Your task to perform on an android device: turn on javascript in the chrome app Image 0: 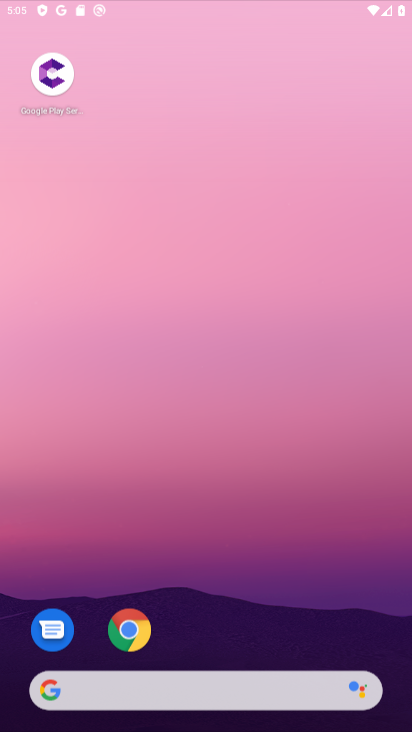
Step 0: drag from (237, 645) to (300, 149)
Your task to perform on an android device: turn on javascript in the chrome app Image 1: 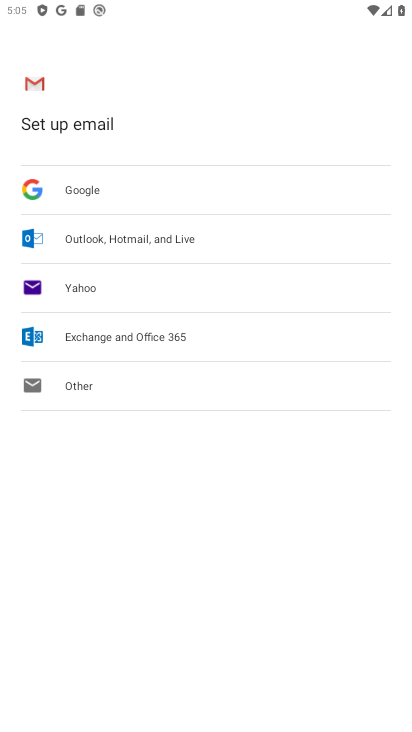
Step 1: press home button
Your task to perform on an android device: turn on javascript in the chrome app Image 2: 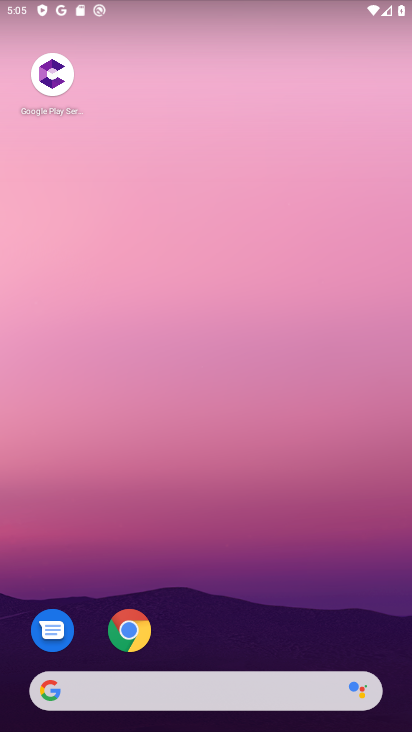
Step 2: click (130, 643)
Your task to perform on an android device: turn on javascript in the chrome app Image 3: 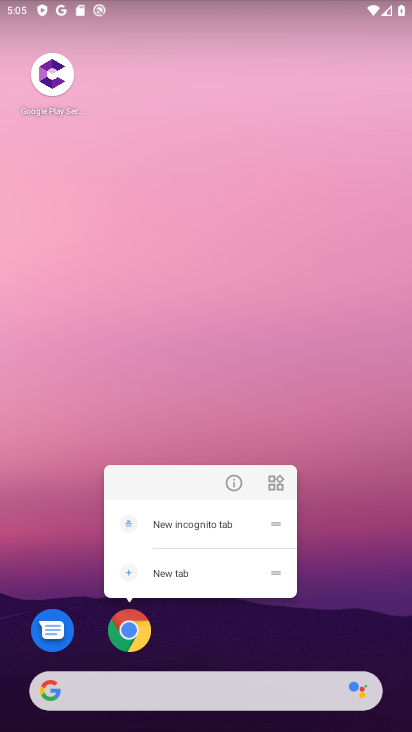
Step 3: click (138, 632)
Your task to perform on an android device: turn on javascript in the chrome app Image 4: 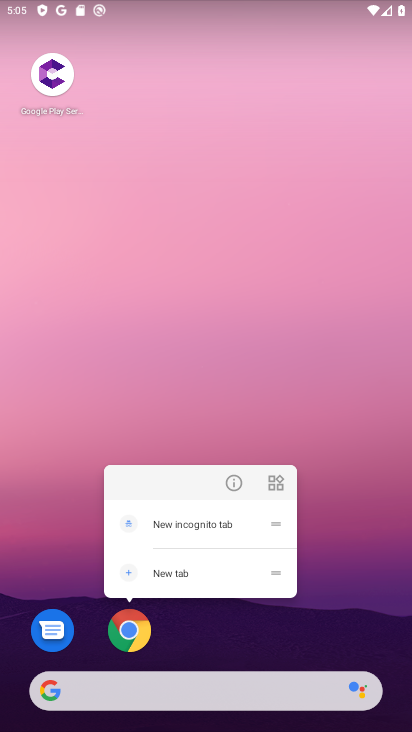
Step 4: click (138, 631)
Your task to perform on an android device: turn on javascript in the chrome app Image 5: 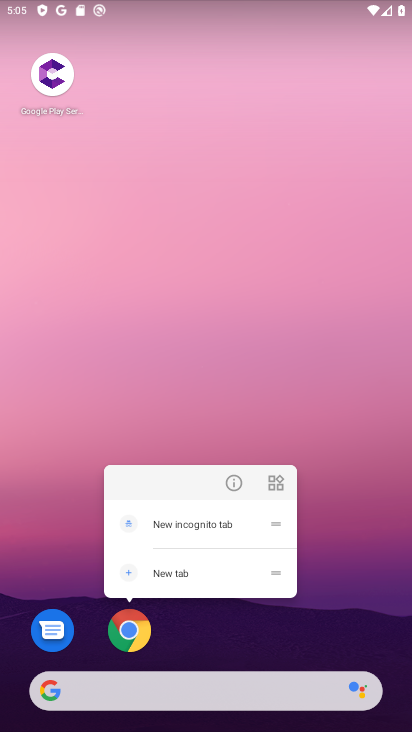
Step 5: click (135, 630)
Your task to perform on an android device: turn on javascript in the chrome app Image 6: 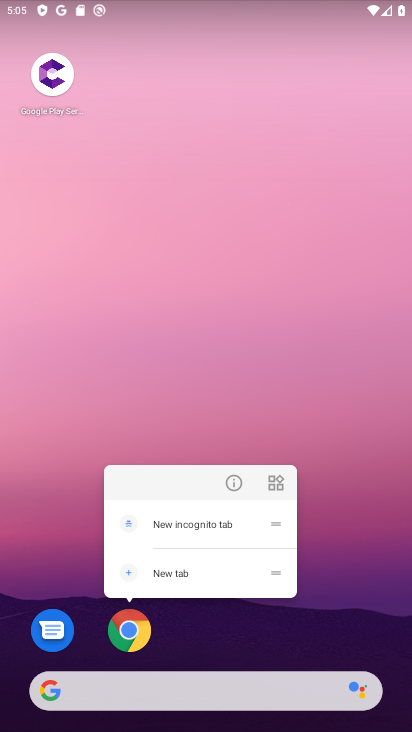
Step 6: click (134, 630)
Your task to perform on an android device: turn on javascript in the chrome app Image 7: 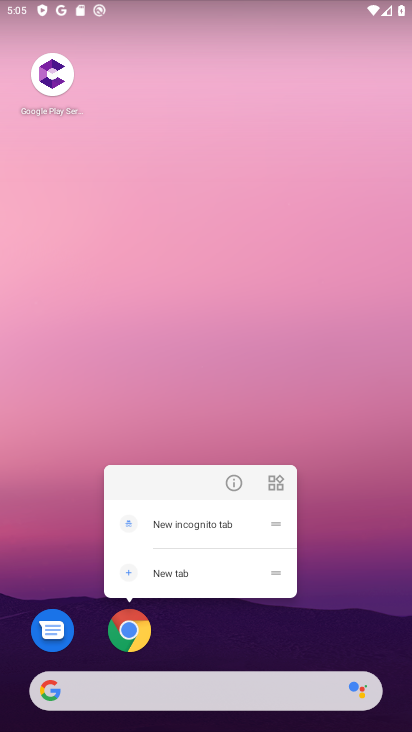
Step 7: click (134, 629)
Your task to perform on an android device: turn on javascript in the chrome app Image 8: 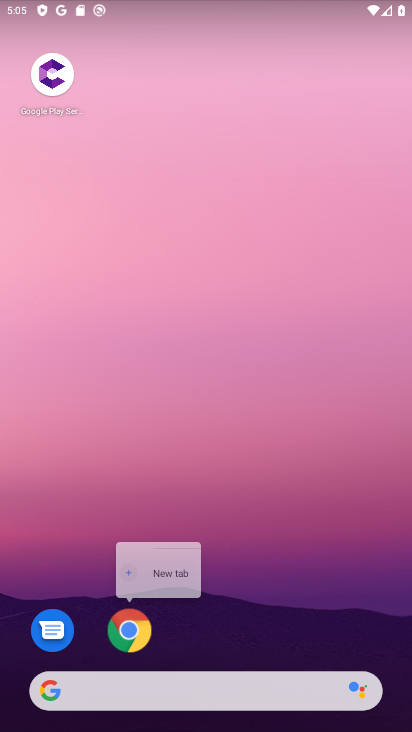
Step 8: click (134, 629)
Your task to perform on an android device: turn on javascript in the chrome app Image 9: 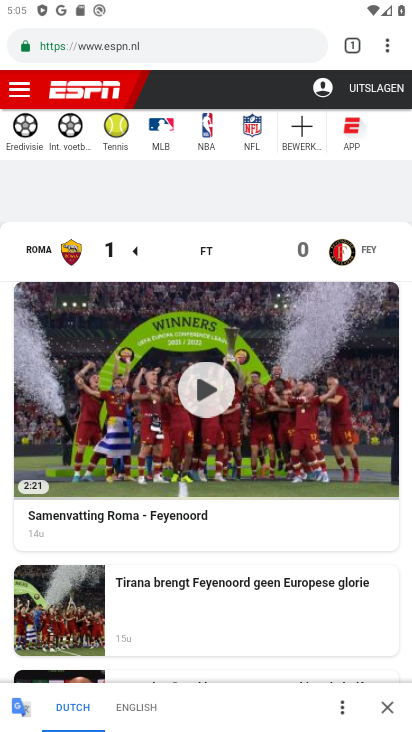
Step 9: drag from (384, 39) to (270, 559)
Your task to perform on an android device: turn on javascript in the chrome app Image 10: 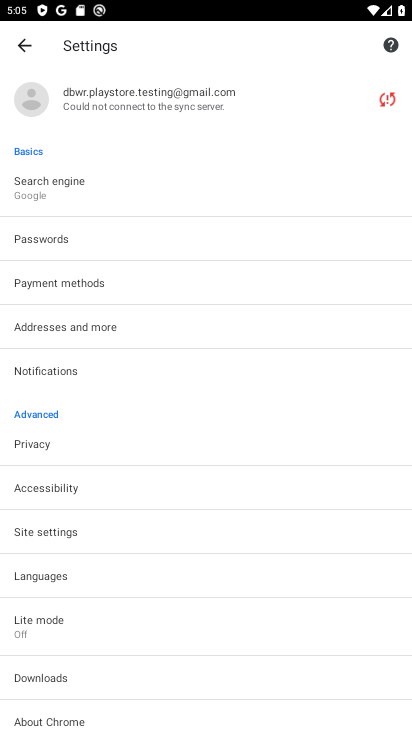
Step 10: drag from (240, 660) to (324, 430)
Your task to perform on an android device: turn on javascript in the chrome app Image 11: 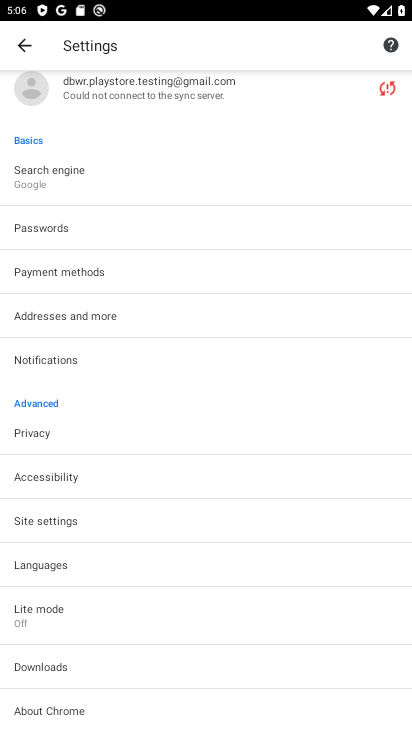
Step 11: click (84, 520)
Your task to perform on an android device: turn on javascript in the chrome app Image 12: 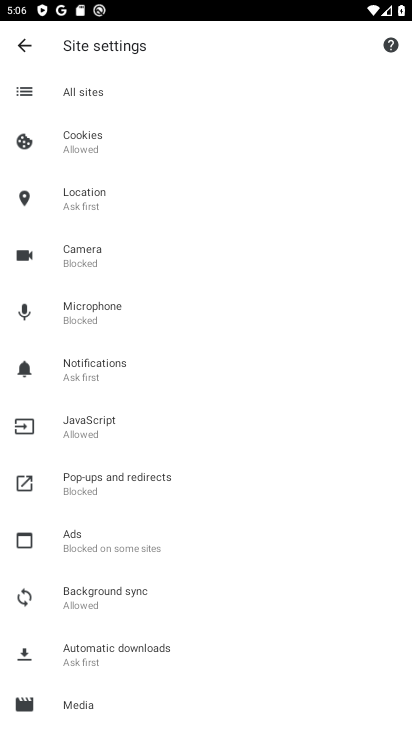
Step 12: drag from (189, 629) to (296, 336)
Your task to perform on an android device: turn on javascript in the chrome app Image 13: 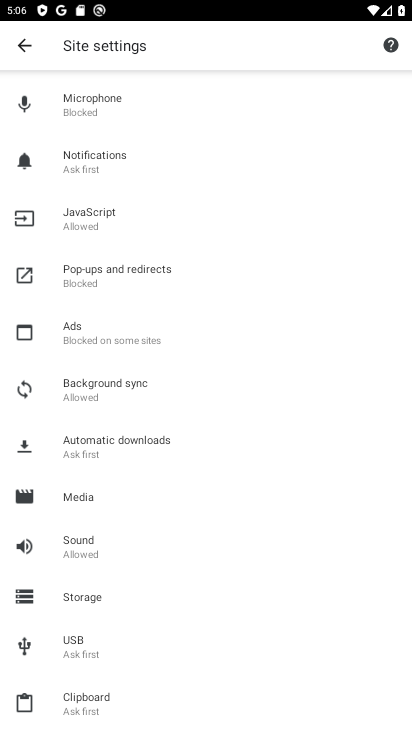
Step 13: click (181, 203)
Your task to perform on an android device: turn on javascript in the chrome app Image 14: 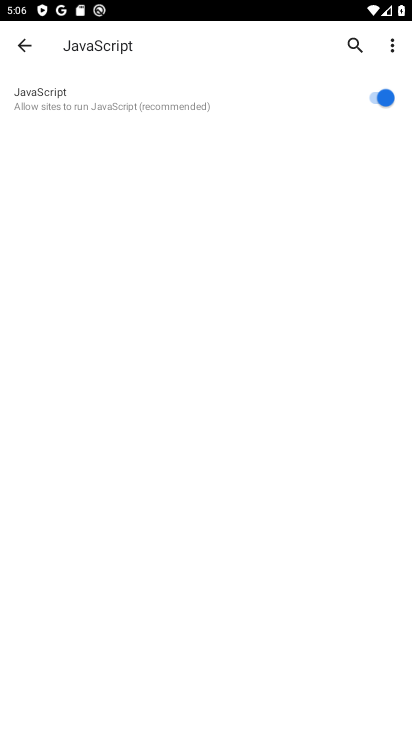
Step 14: task complete